Your task to perform on an android device: toggle translation in the chrome app Image 0: 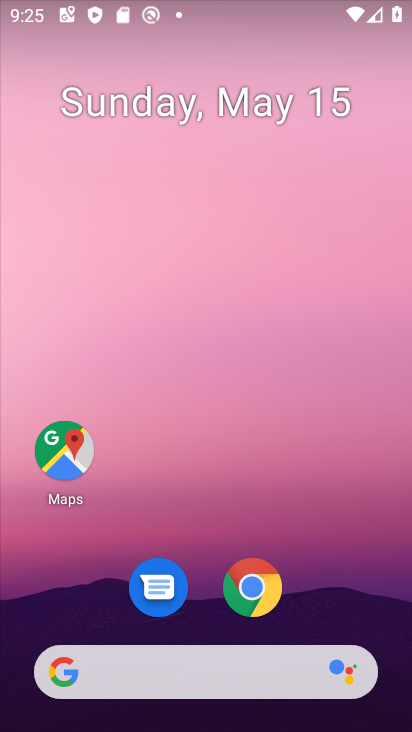
Step 0: drag from (388, 633) to (268, 136)
Your task to perform on an android device: toggle translation in the chrome app Image 1: 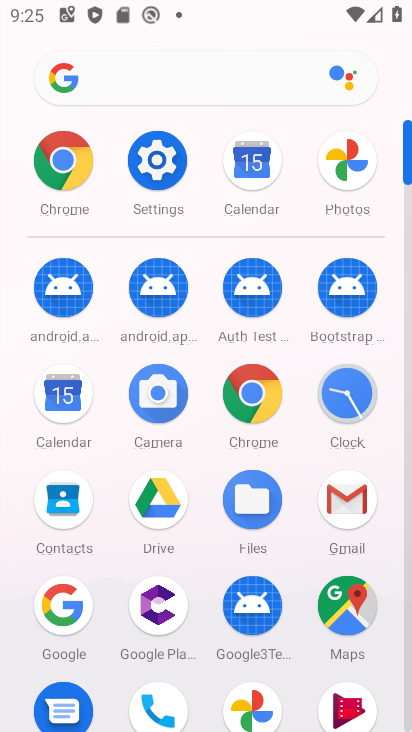
Step 1: click (247, 389)
Your task to perform on an android device: toggle translation in the chrome app Image 2: 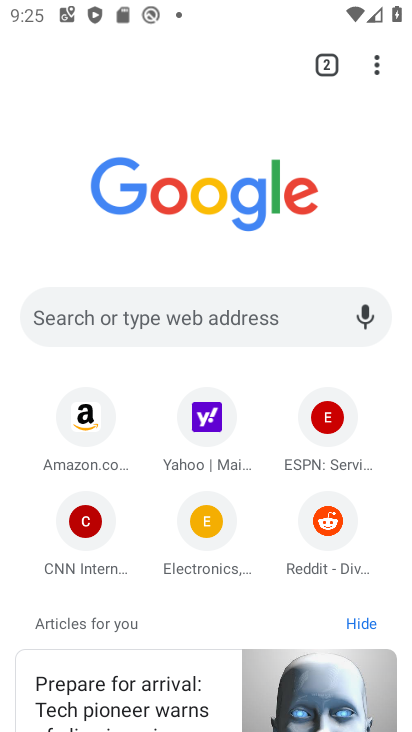
Step 2: click (375, 65)
Your task to perform on an android device: toggle translation in the chrome app Image 3: 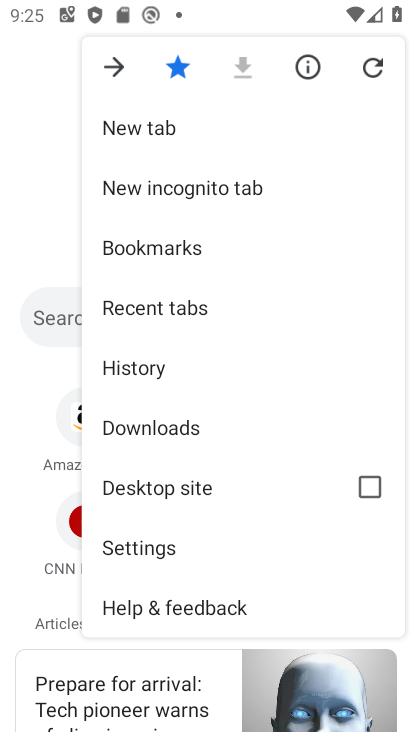
Step 3: click (224, 560)
Your task to perform on an android device: toggle translation in the chrome app Image 4: 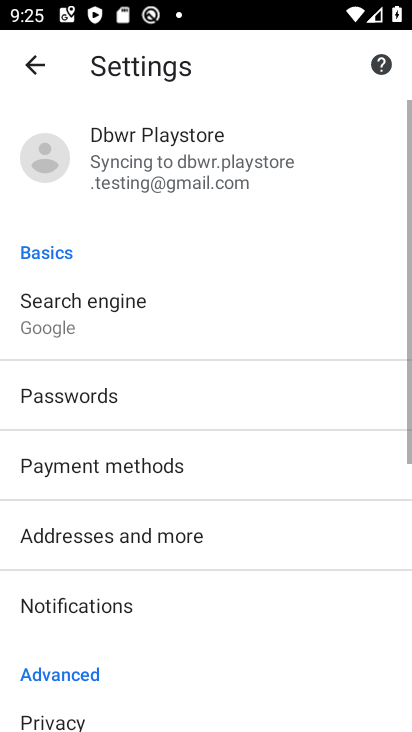
Step 4: drag from (149, 609) to (113, 169)
Your task to perform on an android device: toggle translation in the chrome app Image 5: 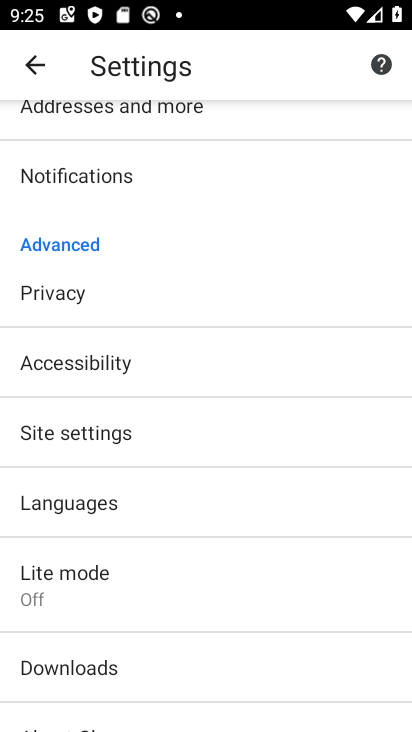
Step 5: click (130, 504)
Your task to perform on an android device: toggle translation in the chrome app Image 6: 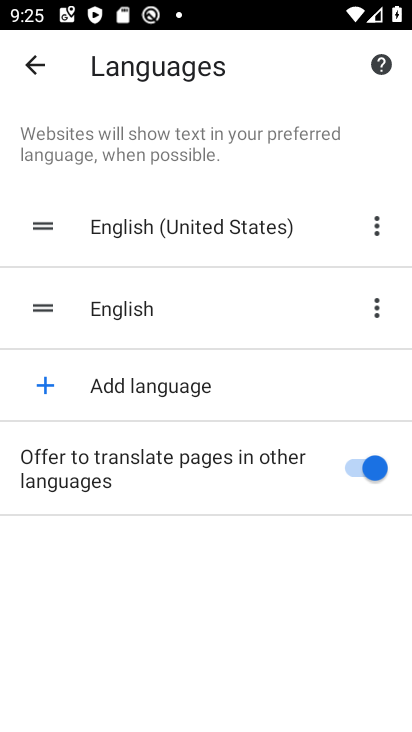
Step 6: click (362, 480)
Your task to perform on an android device: toggle translation in the chrome app Image 7: 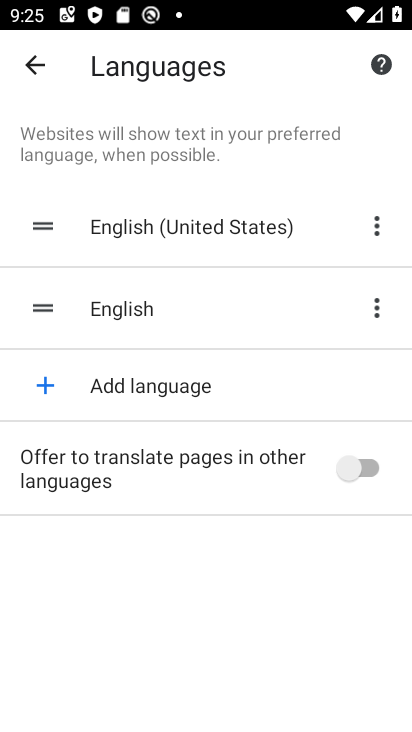
Step 7: task complete